Your task to perform on an android device: snooze an email in the gmail app Image 0: 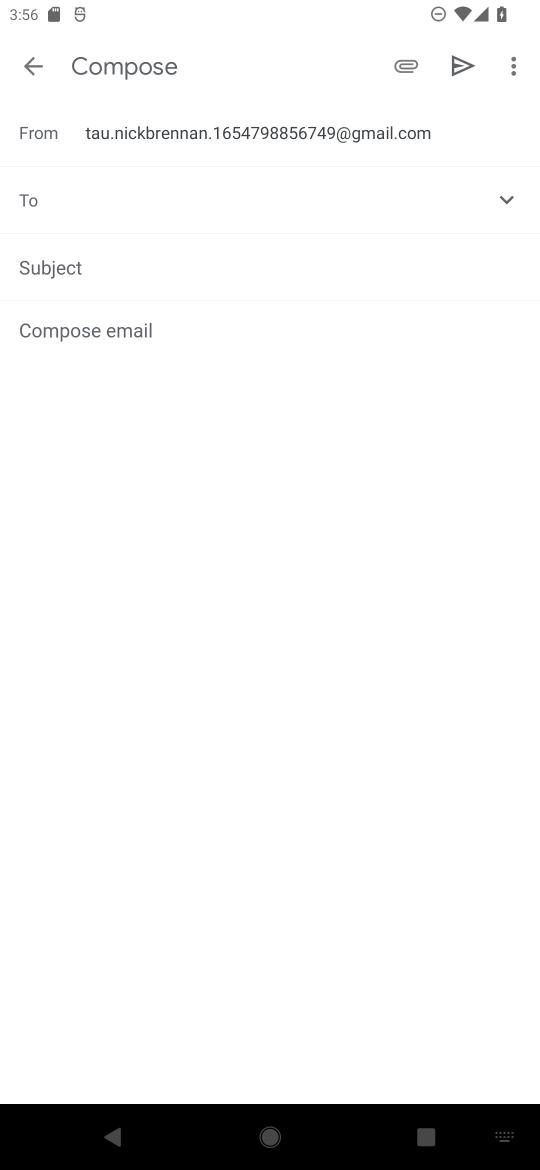
Step 0: click (34, 64)
Your task to perform on an android device: snooze an email in the gmail app Image 1: 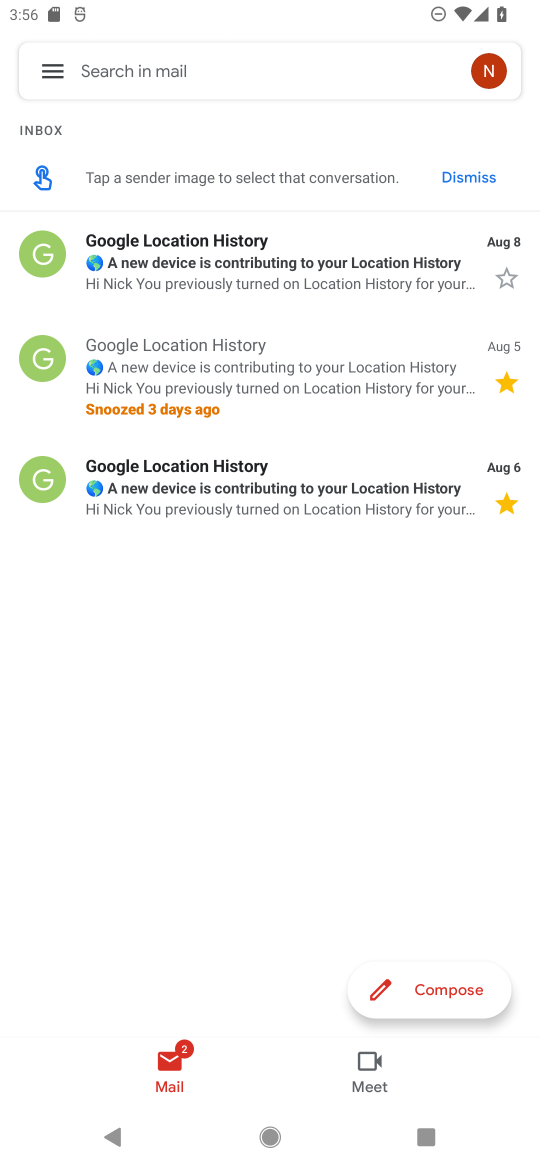
Step 1: click (48, 56)
Your task to perform on an android device: snooze an email in the gmail app Image 2: 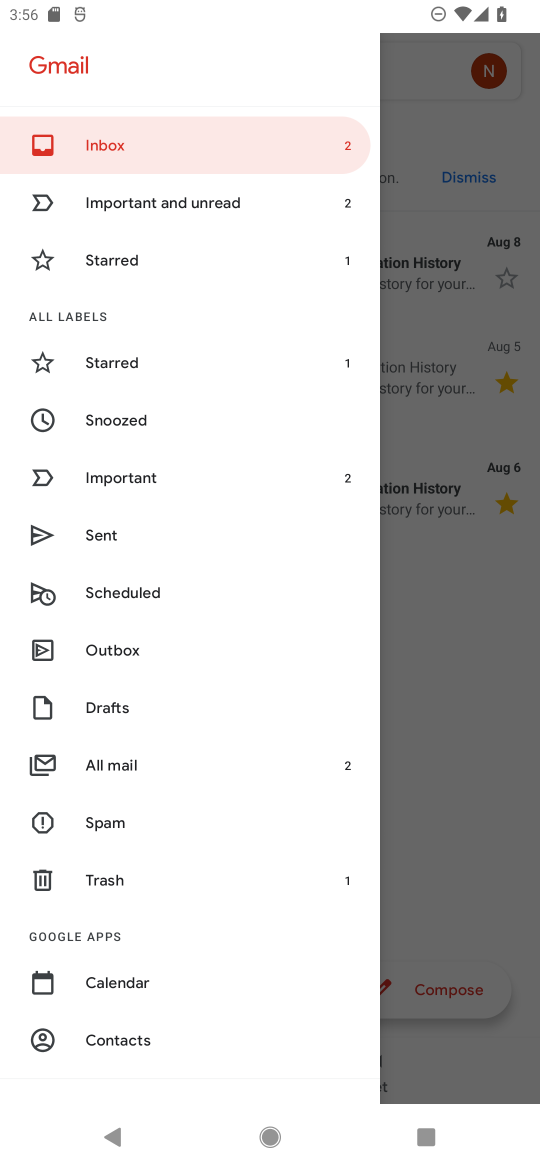
Step 2: click (122, 417)
Your task to perform on an android device: snooze an email in the gmail app Image 3: 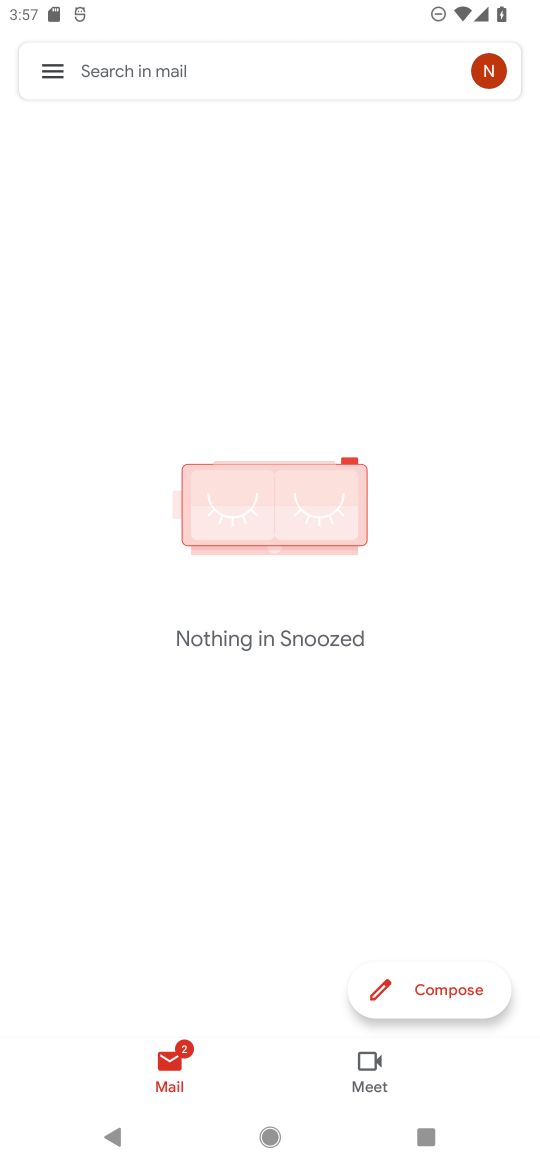
Step 3: task complete